Your task to perform on an android device: manage bookmarks in the chrome app Image 0: 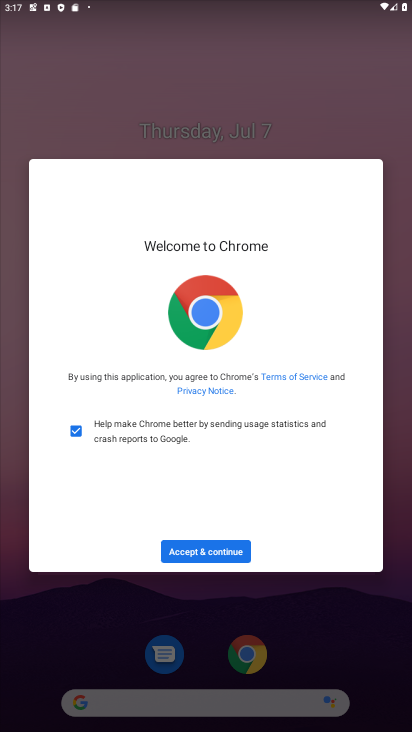
Step 0: press back button
Your task to perform on an android device: manage bookmarks in the chrome app Image 1: 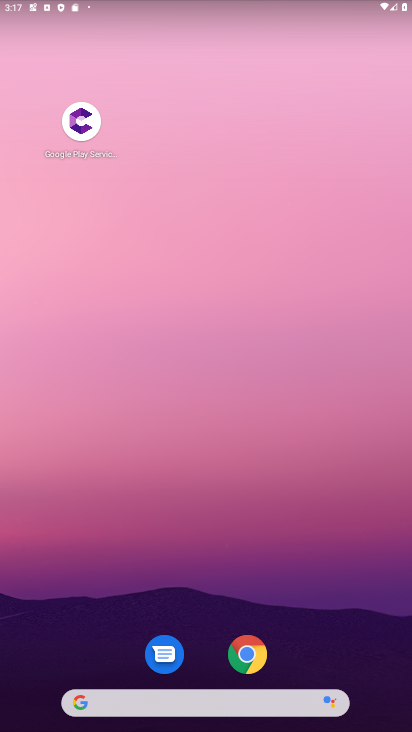
Step 1: click (264, 660)
Your task to perform on an android device: manage bookmarks in the chrome app Image 2: 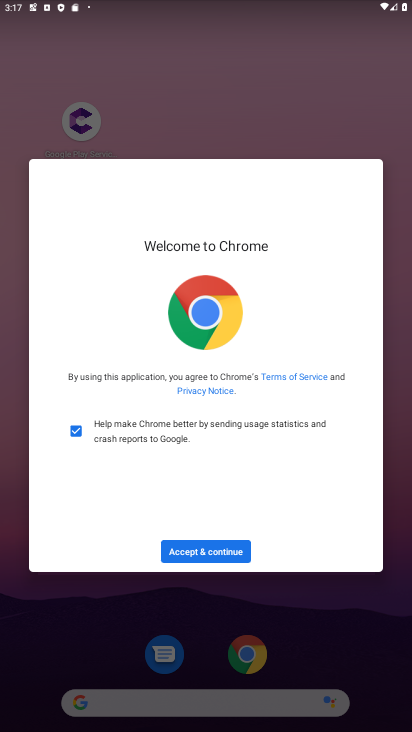
Step 2: click (177, 553)
Your task to perform on an android device: manage bookmarks in the chrome app Image 3: 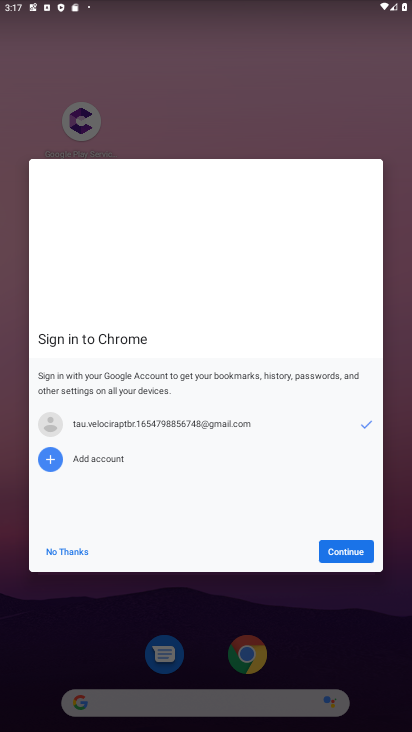
Step 3: click (354, 555)
Your task to perform on an android device: manage bookmarks in the chrome app Image 4: 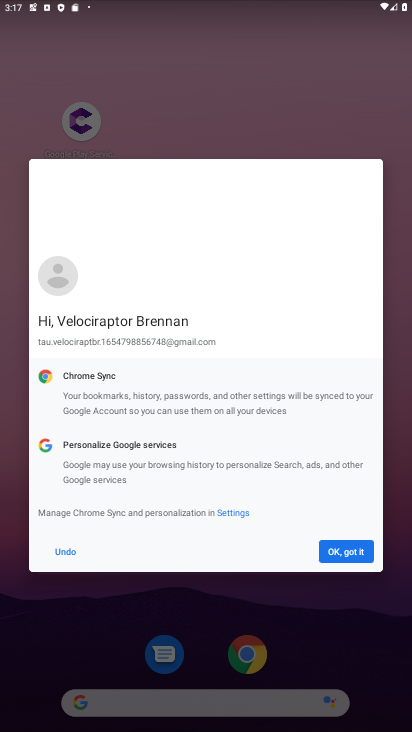
Step 4: click (354, 555)
Your task to perform on an android device: manage bookmarks in the chrome app Image 5: 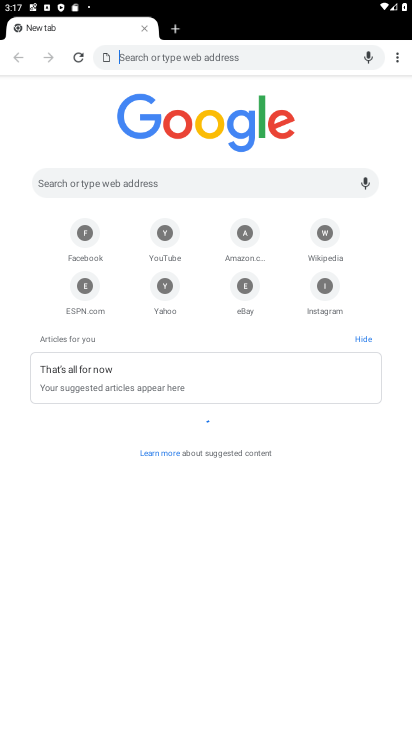
Step 5: click (396, 55)
Your task to perform on an android device: manage bookmarks in the chrome app Image 6: 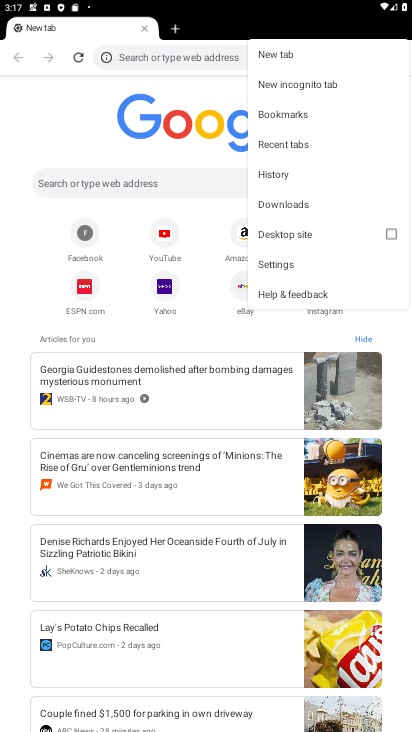
Step 6: click (309, 113)
Your task to perform on an android device: manage bookmarks in the chrome app Image 7: 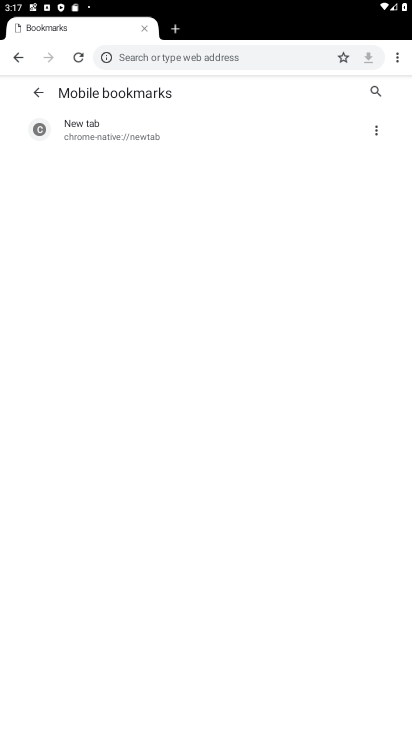
Step 7: click (383, 130)
Your task to perform on an android device: manage bookmarks in the chrome app Image 8: 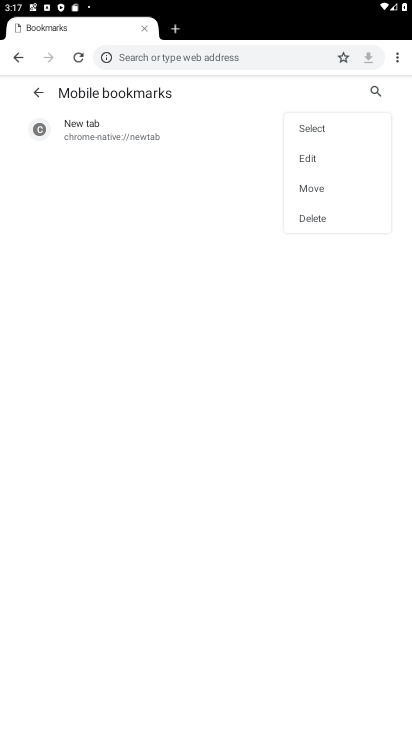
Step 8: click (327, 219)
Your task to perform on an android device: manage bookmarks in the chrome app Image 9: 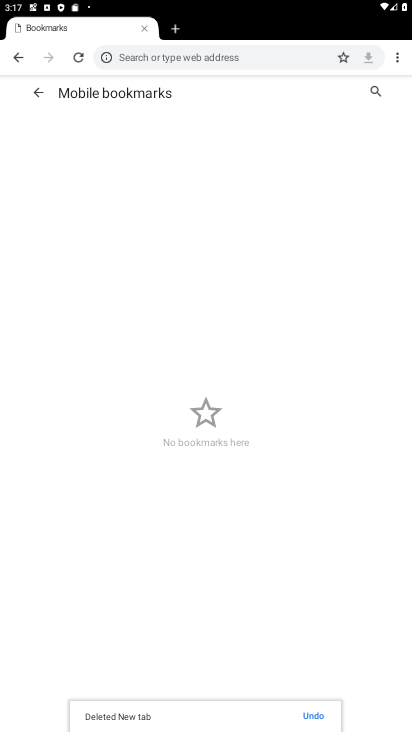
Step 9: task complete